Your task to perform on an android device: turn on the 12-hour format for clock Image 0: 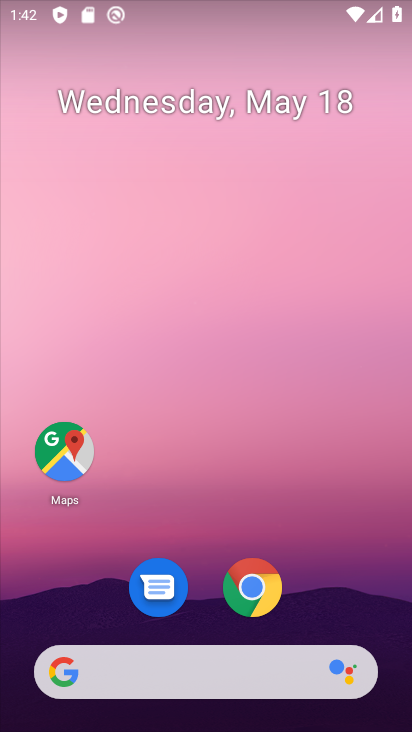
Step 0: drag from (378, 633) to (352, 1)
Your task to perform on an android device: turn on the 12-hour format for clock Image 1: 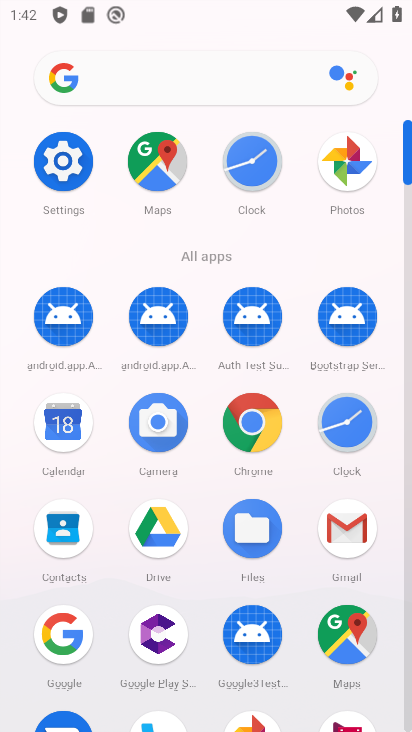
Step 1: click (256, 169)
Your task to perform on an android device: turn on the 12-hour format for clock Image 2: 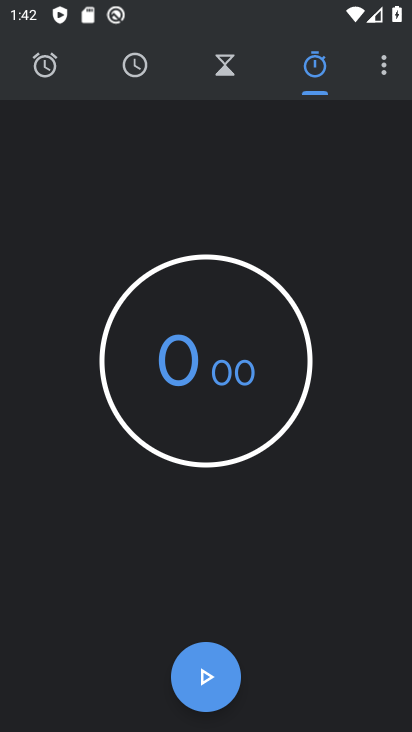
Step 2: click (384, 70)
Your task to perform on an android device: turn on the 12-hour format for clock Image 3: 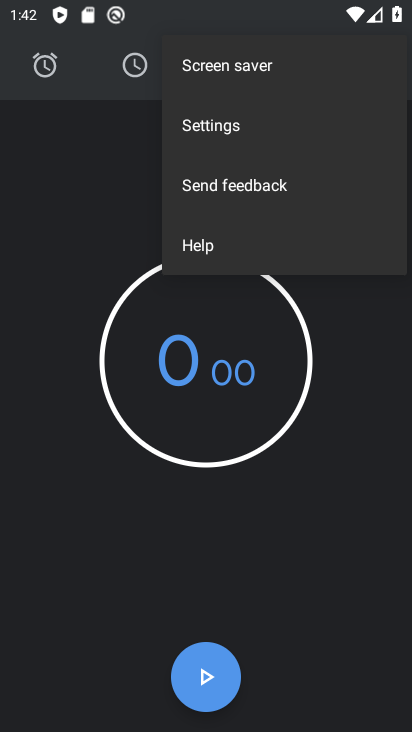
Step 3: click (197, 137)
Your task to perform on an android device: turn on the 12-hour format for clock Image 4: 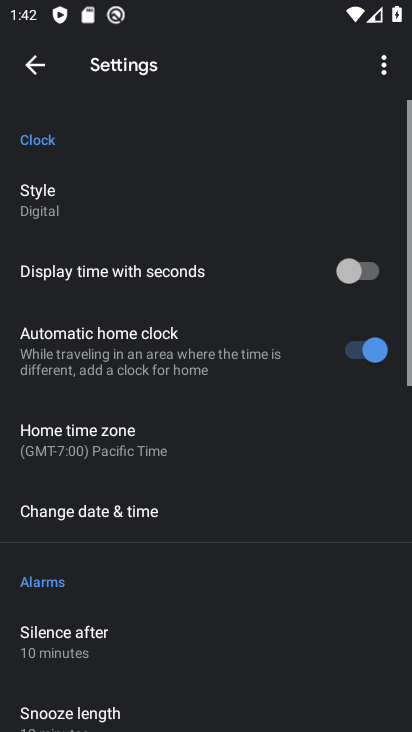
Step 4: click (64, 521)
Your task to perform on an android device: turn on the 12-hour format for clock Image 5: 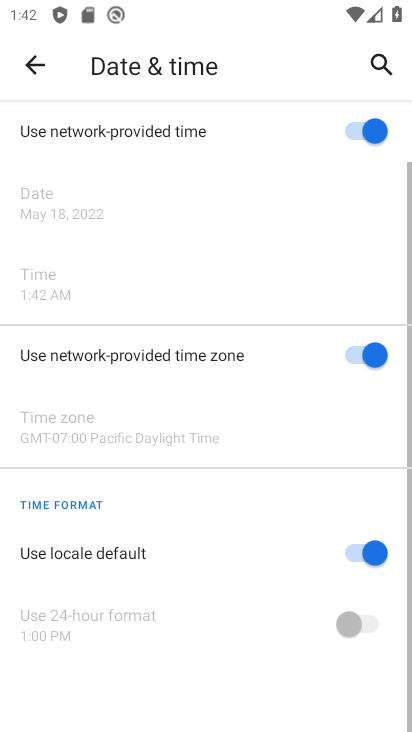
Step 5: task complete